Your task to perform on an android device: check google app version Image 0: 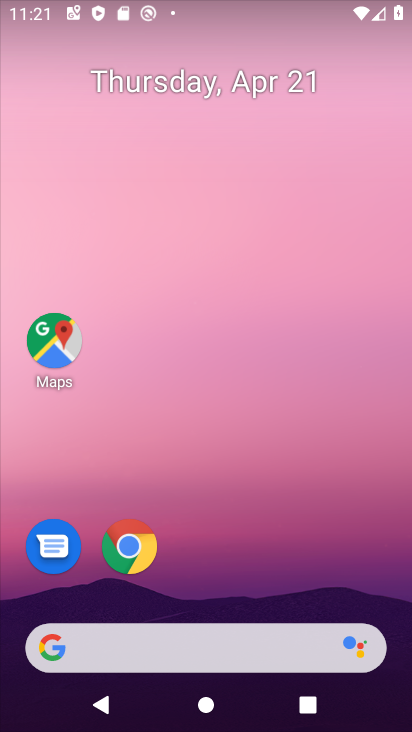
Step 0: drag from (238, 563) to (227, 67)
Your task to perform on an android device: check google app version Image 1: 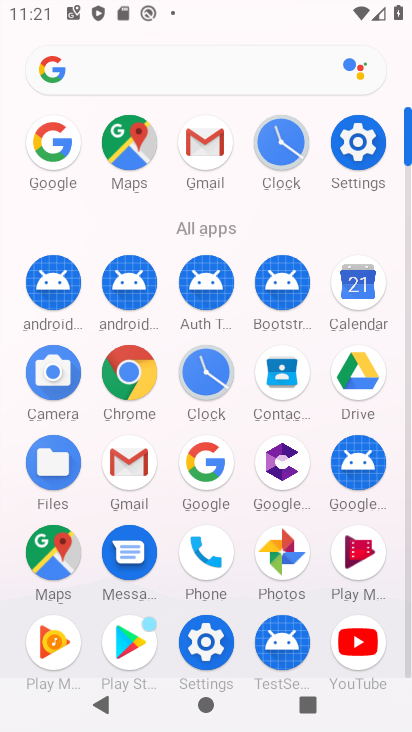
Step 1: click (209, 459)
Your task to perform on an android device: check google app version Image 2: 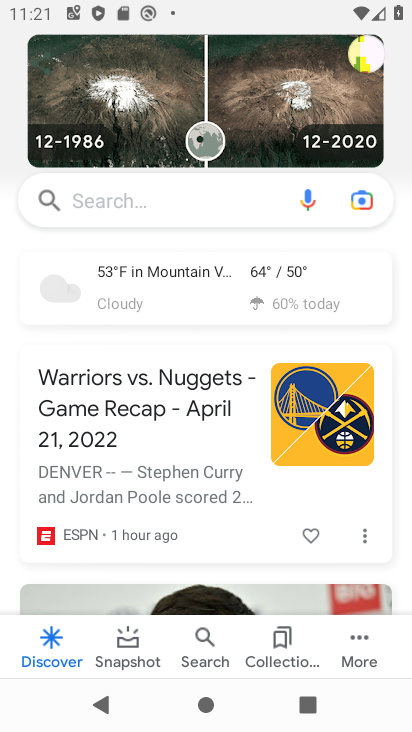
Step 2: click (370, 659)
Your task to perform on an android device: check google app version Image 3: 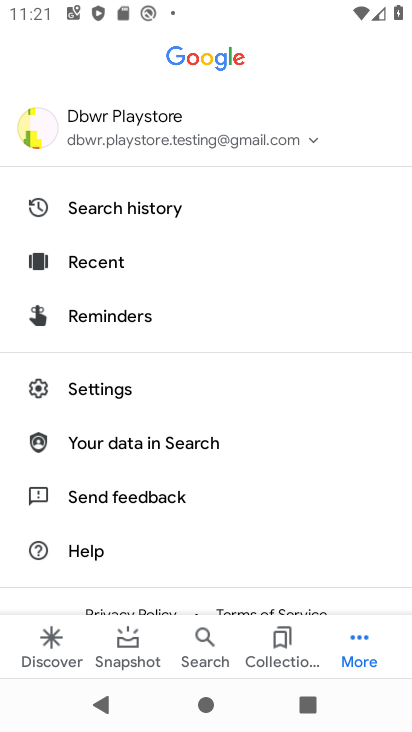
Step 3: click (177, 385)
Your task to perform on an android device: check google app version Image 4: 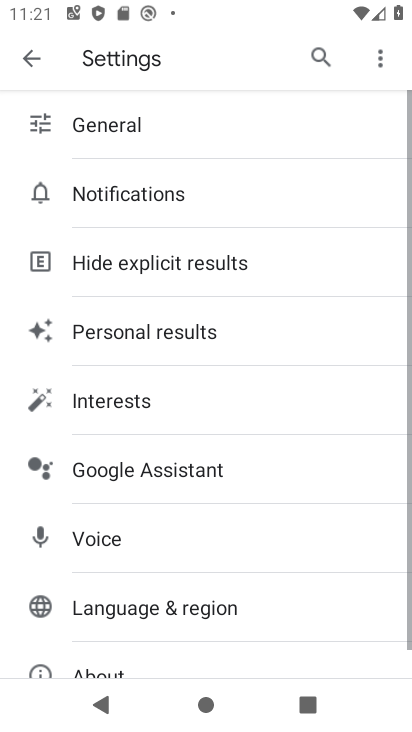
Step 4: drag from (253, 364) to (255, 59)
Your task to perform on an android device: check google app version Image 5: 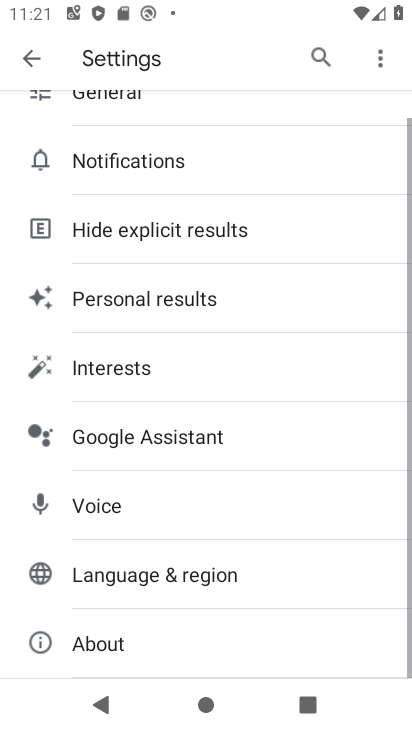
Step 5: click (129, 641)
Your task to perform on an android device: check google app version Image 6: 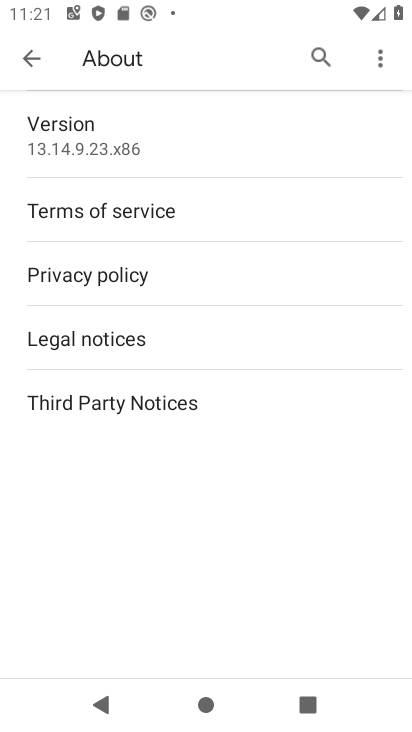
Step 6: click (160, 132)
Your task to perform on an android device: check google app version Image 7: 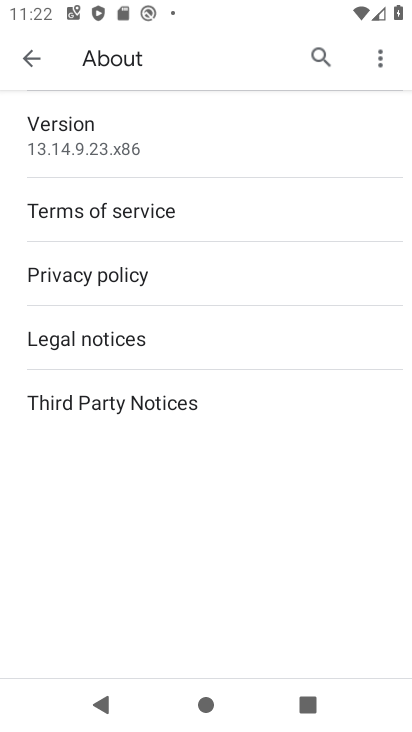
Step 7: task complete